Your task to perform on an android device: set the timer Image 0: 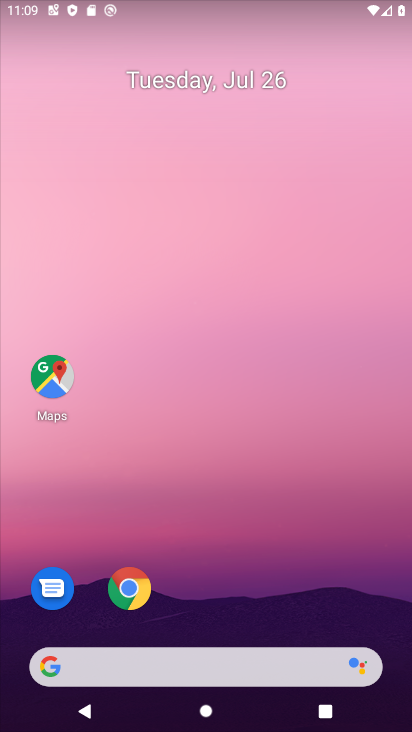
Step 0: drag from (193, 607) to (176, 158)
Your task to perform on an android device: set the timer Image 1: 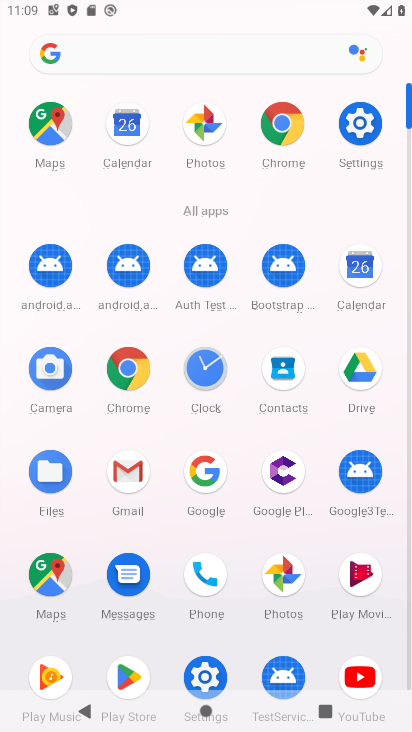
Step 1: click (205, 393)
Your task to perform on an android device: set the timer Image 2: 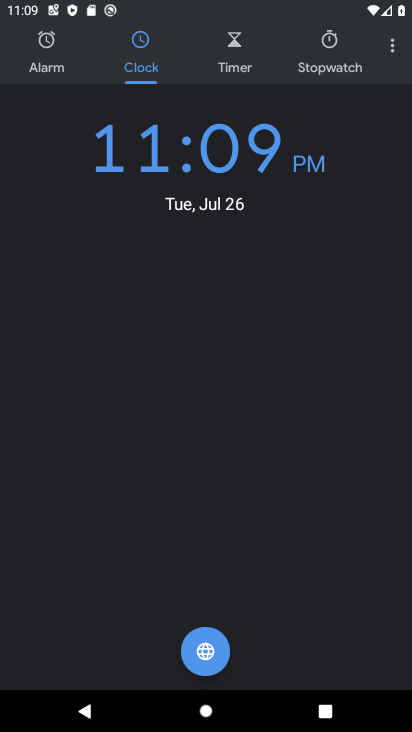
Step 2: click (239, 60)
Your task to perform on an android device: set the timer Image 3: 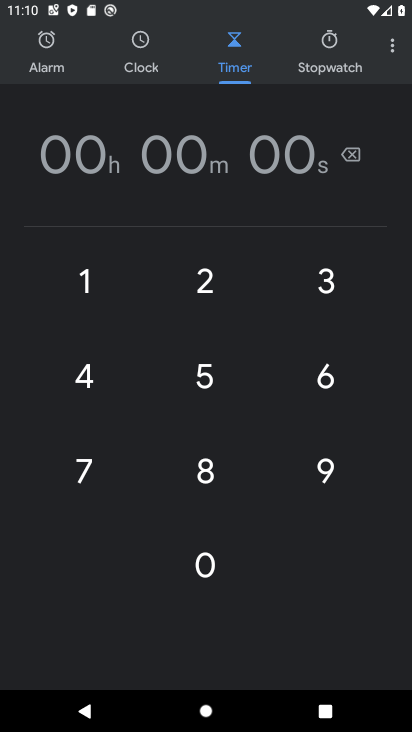
Step 3: click (92, 280)
Your task to perform on an android device: set the timer Image 4: 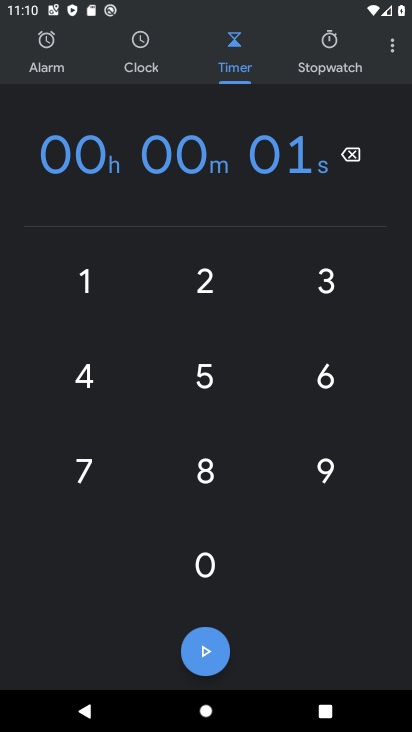
Step 4: click (209, 555)
Your task to perform on an android device: set the timer Image 5: 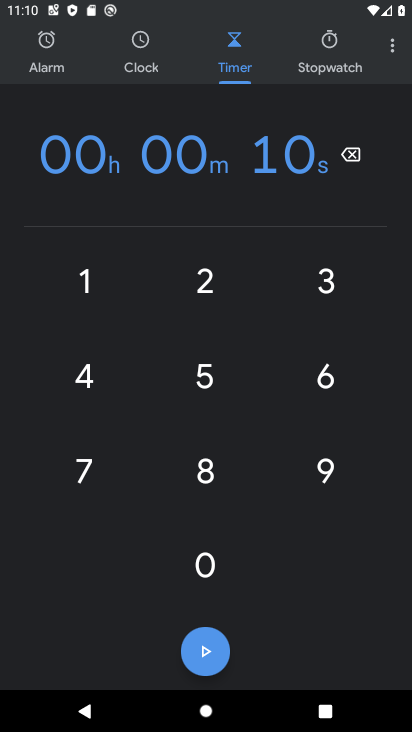
Step 5: click (209, 555)
Your task to perform on an android device: set the timer Image 6: 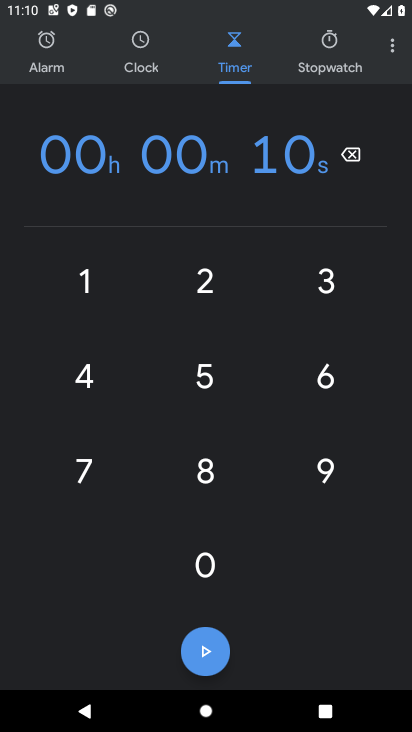
Step 6: click (209, 555)
Your task to perform on an android device: set the timer Image 7: 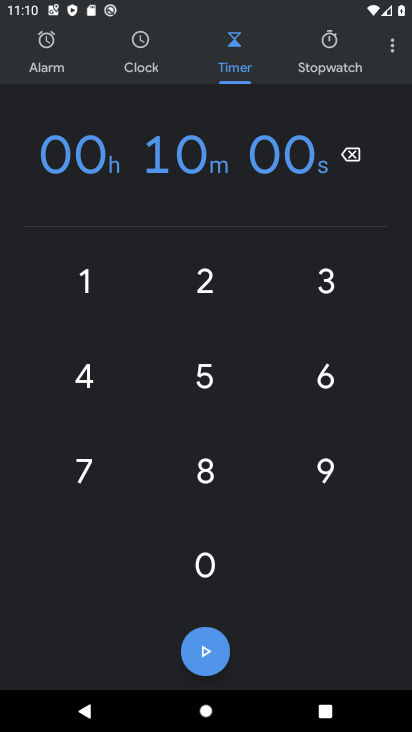
Step 7: click (205, 643)
Your task to perform on an android device: set the timer Image 8: 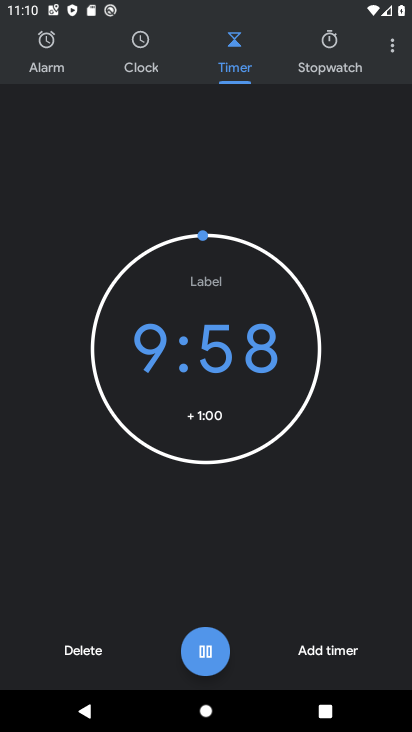
Step 8: click (322, 652)
Your task to perform on an android device: set the timer Image 9: 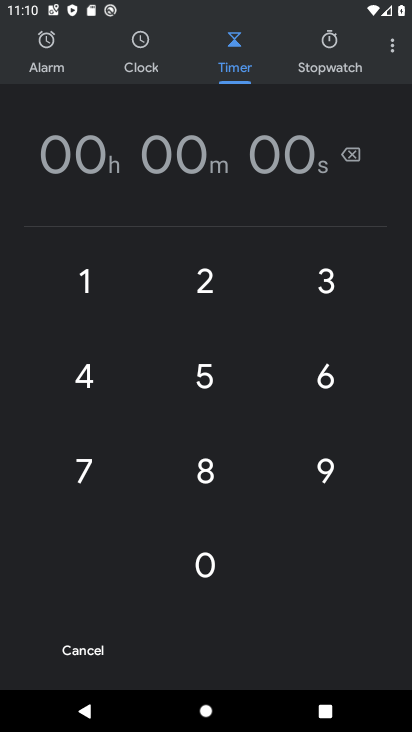
Step 9: task complete